Your task to perform on an android device: turn on wifi Image 0: 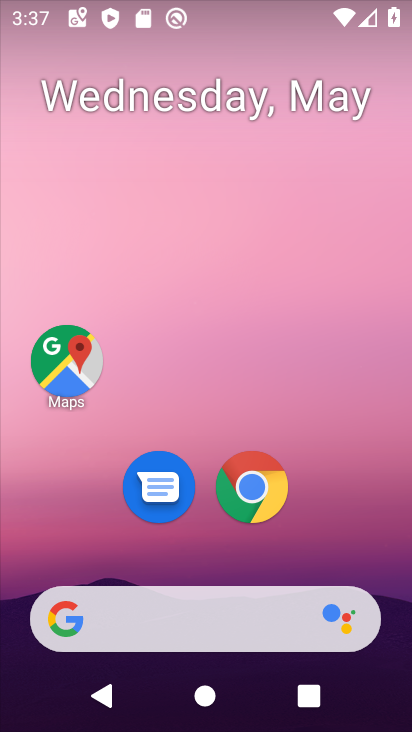
Step 0: drag from (357, 517) to (260, 31)
Your task to perform on an android device: turn on wifi Image 1: 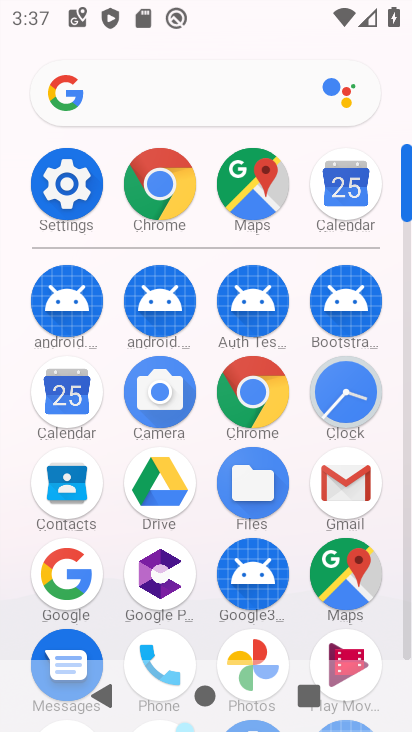
Step 1: click (66, 178)
Your task to perform on an android device: turn on wifi Image 2: 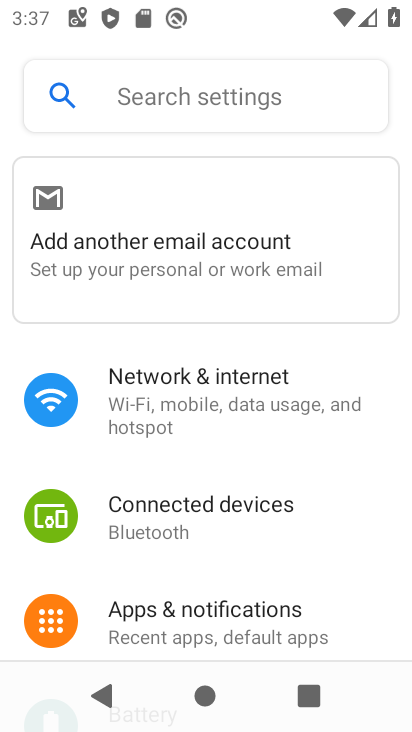
Step 2: click (209, 373)
Your task to perform on an android device: turn on wifi Image 3: 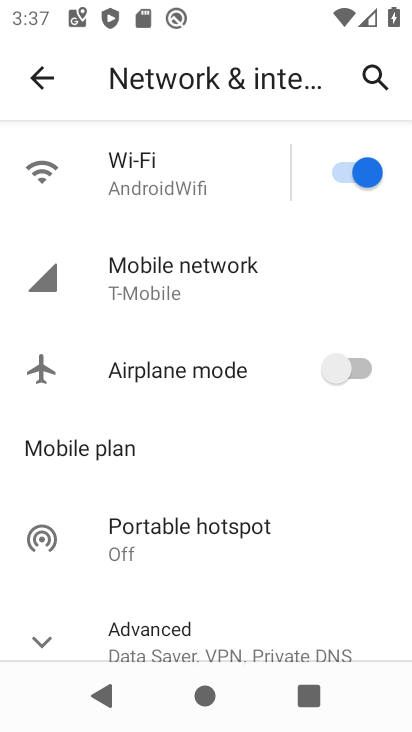
Step 3: task complete